Your task to perform on an android device: Open wifi settings Image 0: 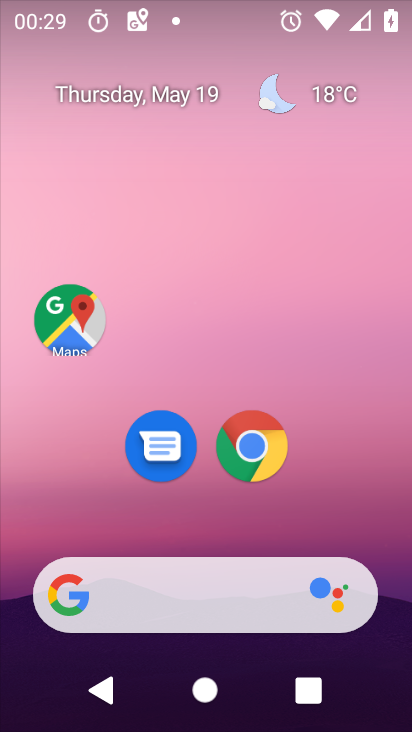
Step 0: press home button
Your task to perform on an android device: Open wifi settings Image 1: 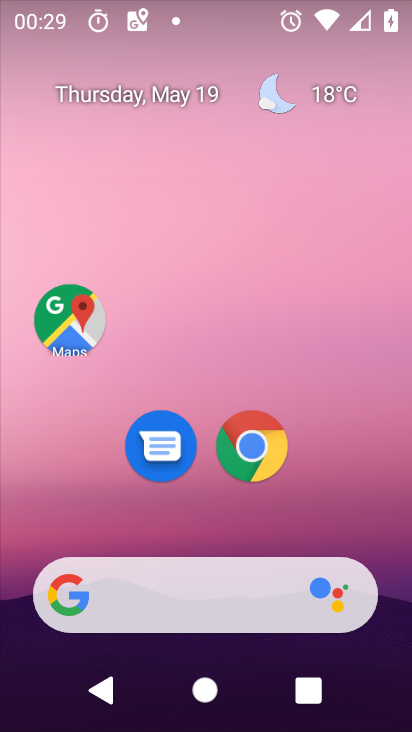
Step 1: drag from (196, 602) to (321, 212)
Your task to perform on an android device: Open wifi settings Image 2: 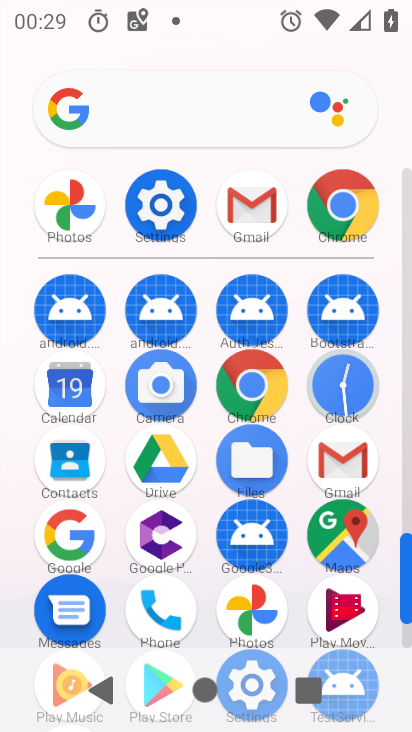
Step 2: click (158, 200)
Your task to perform on an android device: Open wifi settings Image 3: 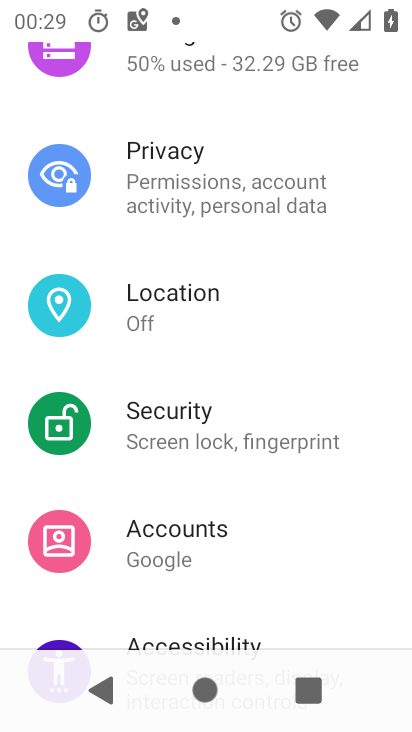
Step 3: drag from (297, 122) to (177, 516)
Your task to perform on an android device: Open wifi settings Image 4: 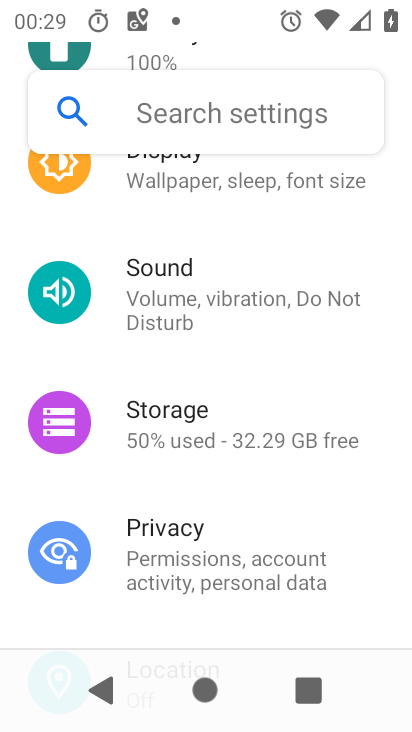
Step 4: drag from (280, 239) to (207, 590)
Your task to perform on an android device: Open wifi settings Image 5: 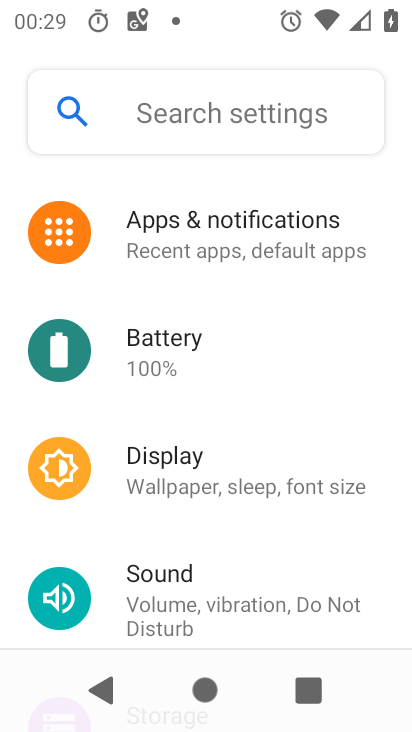
Step 5: drag from (280, 192) to (205, 549)
Your task to perform on an android device: Open wifi settings Image 6: 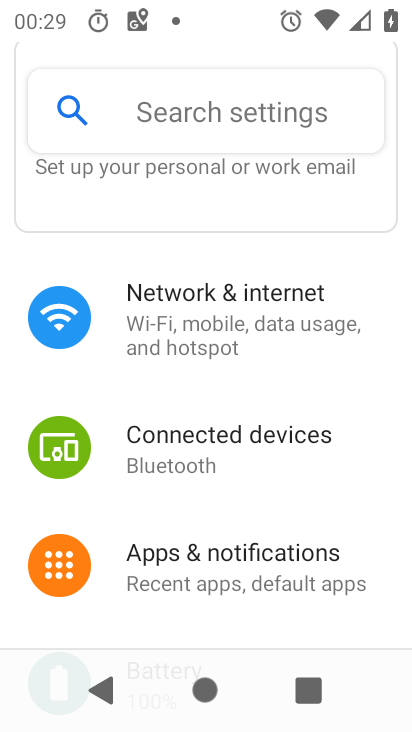
Step 6: click (260, 320)
Your task to perform on an android device: Open wifi settings Image 7: 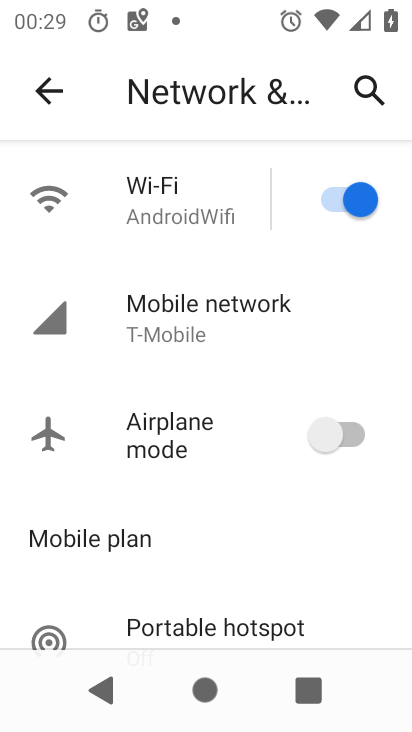
Step 7: click (202, 212)
Your task to perform on an android device: Open wifi settings Image 8: 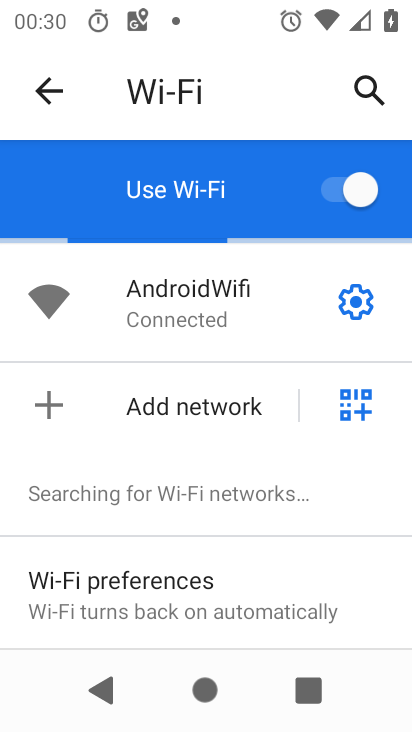
Step 8: task complete